Your task to perform on an android device: toggle pop-ups in chrome Image 0: 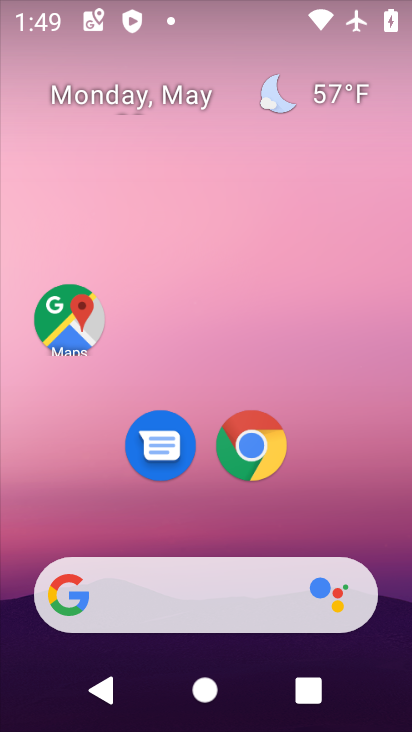
Step 0: click (255, 456)
Your task to perform on an android device: toggle pop-ups in chrome Image 1: 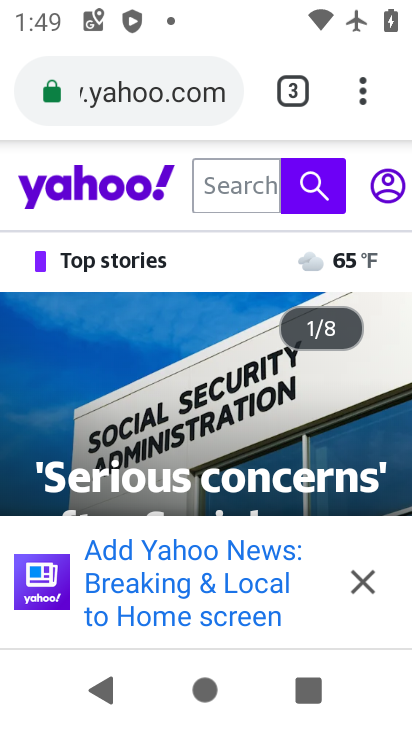
Step 1: click (351, 91)
Your task to perform on an android device: toggle pop-ups in chrome Image 2: 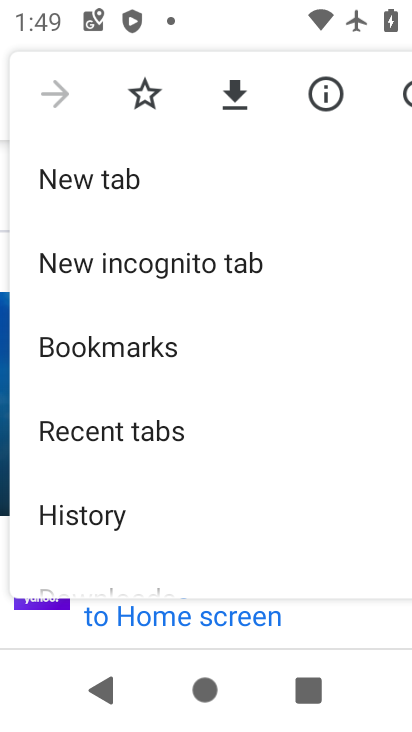
Step 2: drag from (145, 510) to (164, 127)
Your task to perform on an android device: toggle pop-ups in chrome Image 3: 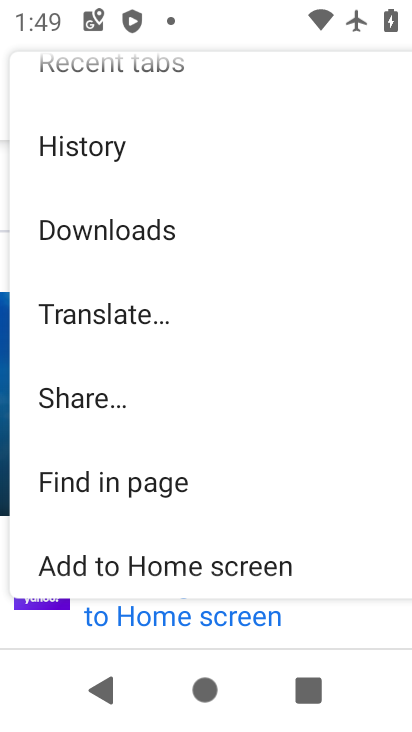
Step 3: drag from (161, 552) to (200, 166)
Your task to perform on an android device: toggle pop-ups in chrome Image 4: 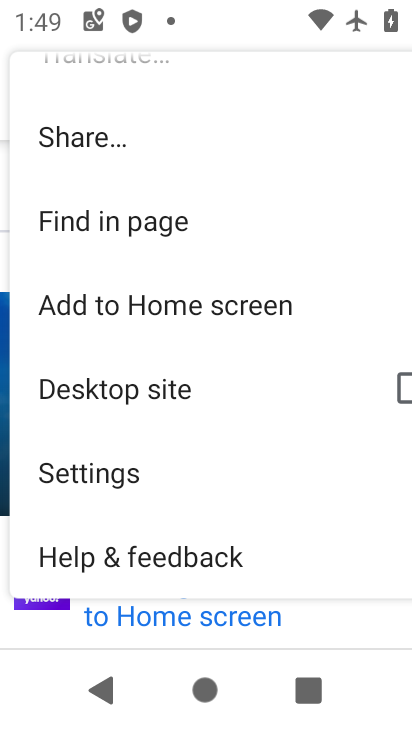
Step 4: click (125, 477)
Your task to perform on an android device: toggle pop-ups in chrome Image 5: 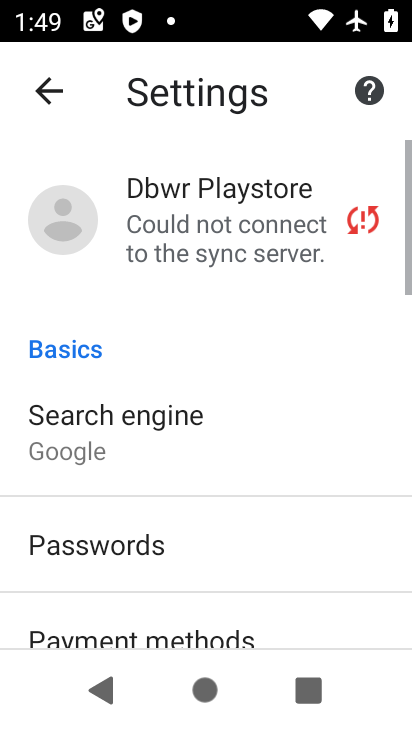
Step 5: drag from (247, 478) to (260, 105)
Your task to perform on an android device: toggle pop-ups in chrome Image 6: 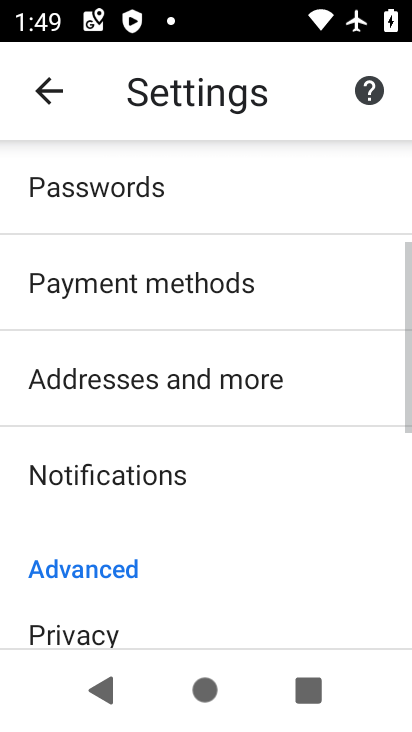
Step 6: drag from (213, 559) to (245, 131)
Your task to perform on an android device: toggle pop-ups in chrome Image 7: 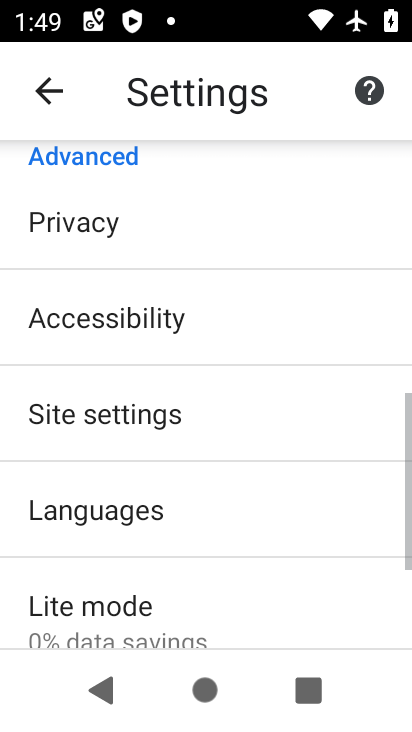
Step 7: drag from (153, 553) to (184, 231)
Your task to perform on an android device: toggle pop-ups in chrome Image 8: 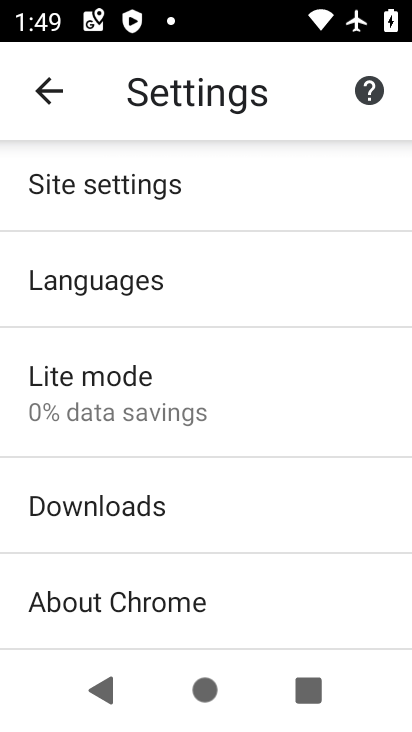
Step 8: click (130, 189)
Your task to perform on an android device: toggle pop-ups in chrome Image 9: 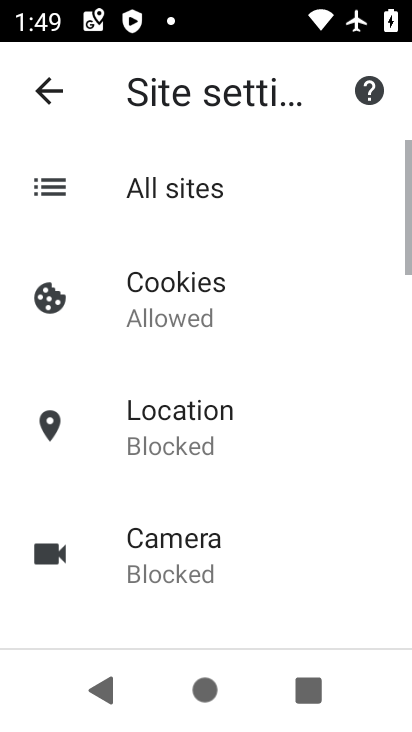
Step 9: drag from (225, 571) to (233, 131)
Your task to perform on an android device: toggle pop-ups in chrome Image 10: 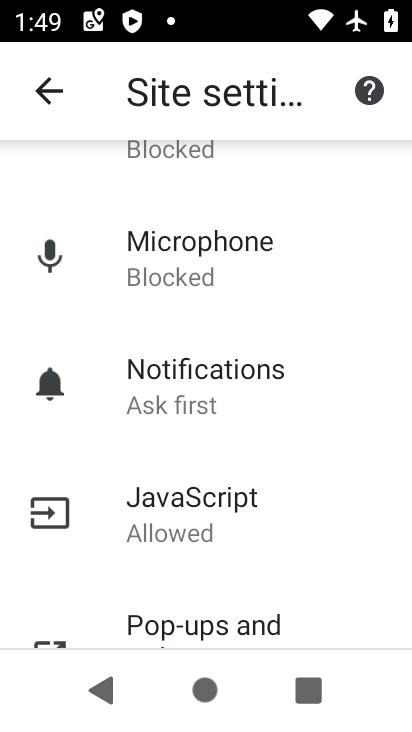
Step 10: click (218, 626)
Your task to perform on an android device: toggle pop-ups in chrome Image 11: 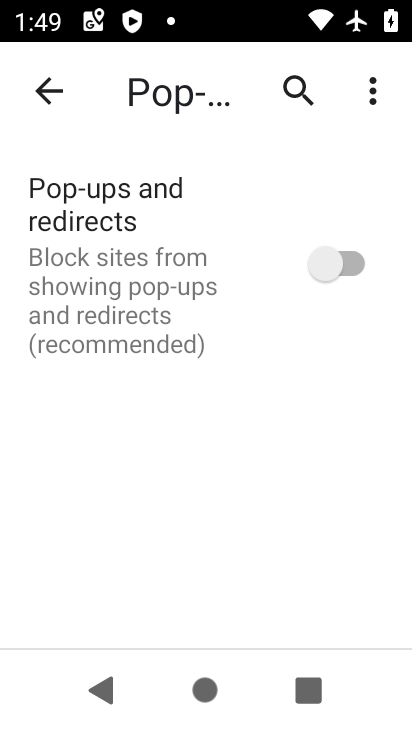
Step 11: click (325, 283)
Your task to perform on an android device: toggle pop-ups in chrome Image 12: 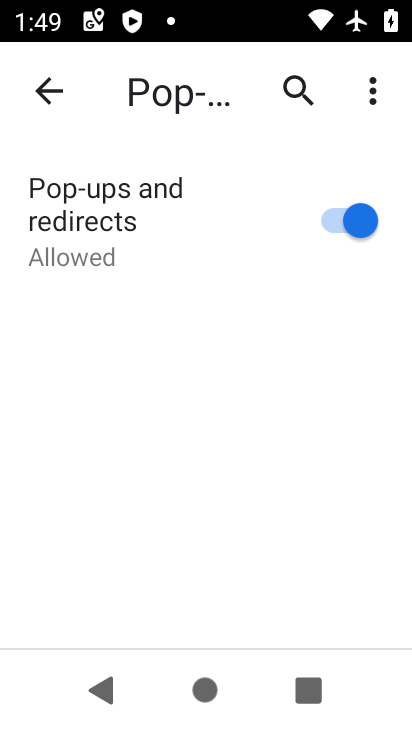
Step 12: task complete